Your task to perform on an android device: Go to Google maps Image 0: 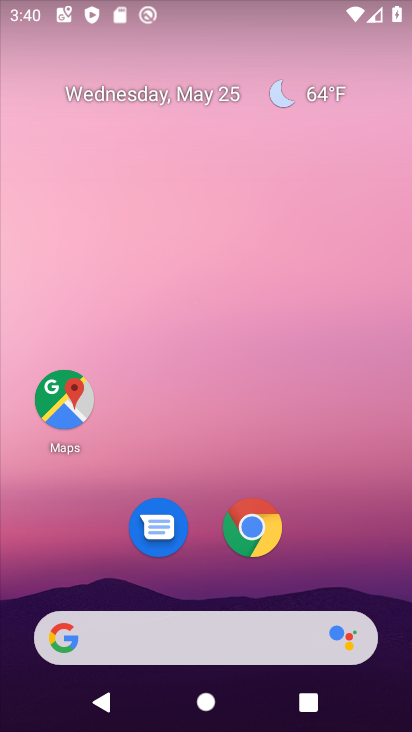
Step 0: click (45, 400)
Your task to perform on an android device: Go to Google maps Image 1: 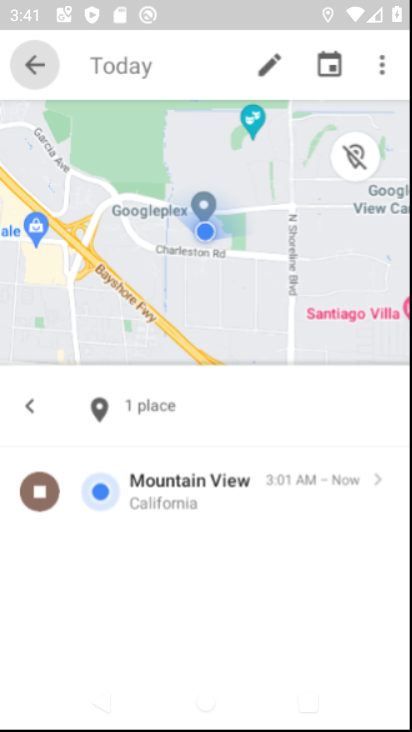
Step 1: task complete